Your task to perform on an android device: turn on showing notifications on the lock screen Image 0: 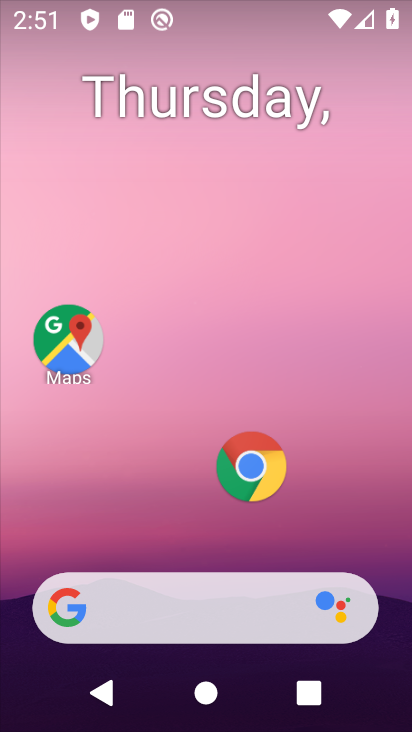
Step 0: drag from (224, 551) to (242, 127)
Your task to perform on an android device: turn on showing notifications on the lock screen Image 1: 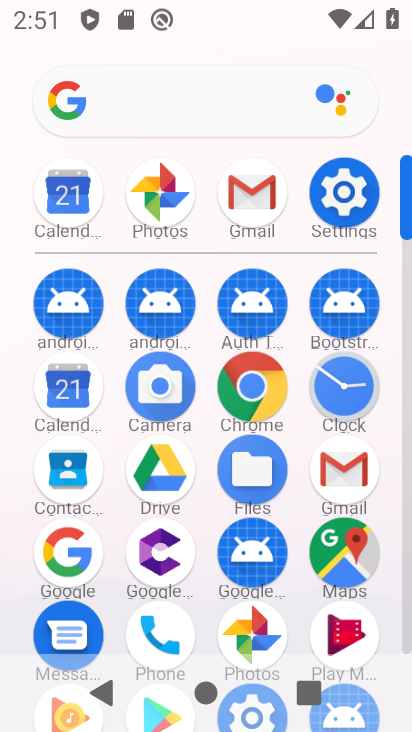
Step 1: click (338, 206)
Your task to perform on an android device: turn on showing notifications on the lock screen Image 2: 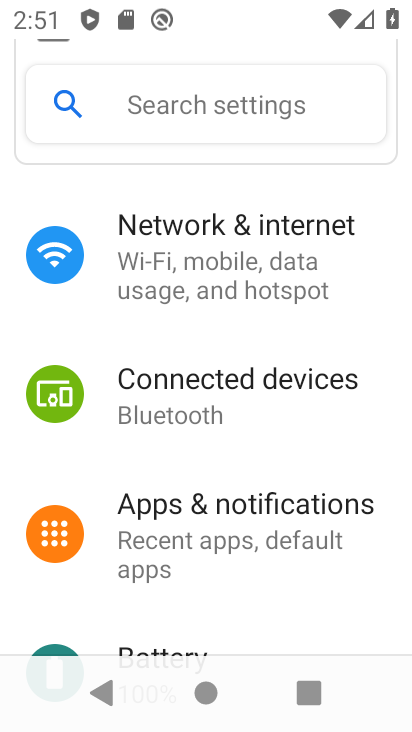
Step 2: drag from (256, 581) to (253, 330)
Your task to perform on an android device: turn on showing notifications on the lock screen Image 3: 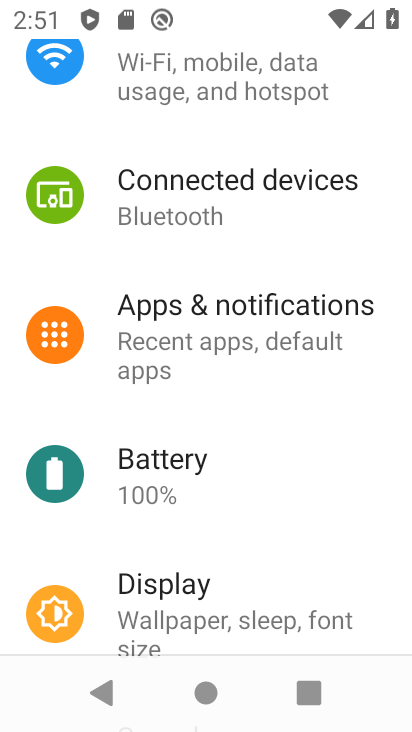
Step 3: drag from (259, 556) to (268, 503)
Your task to perform on an android device: turn on showing notifications on the lock screen Image 4: 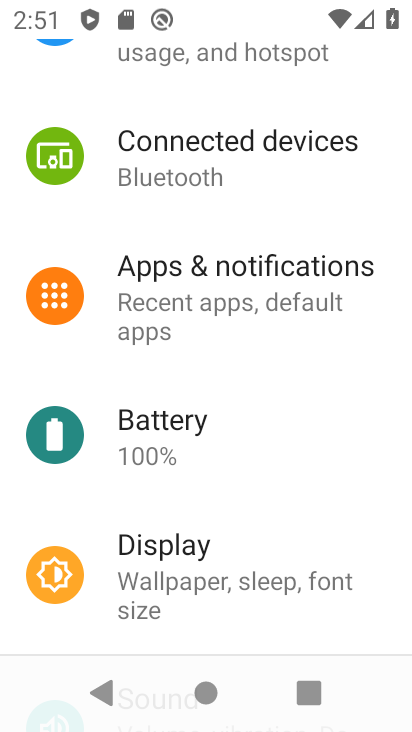
Step 4: click (257, 300)
Your task to perform on an android device: turn on showing notifications on the lock screen Image 5: 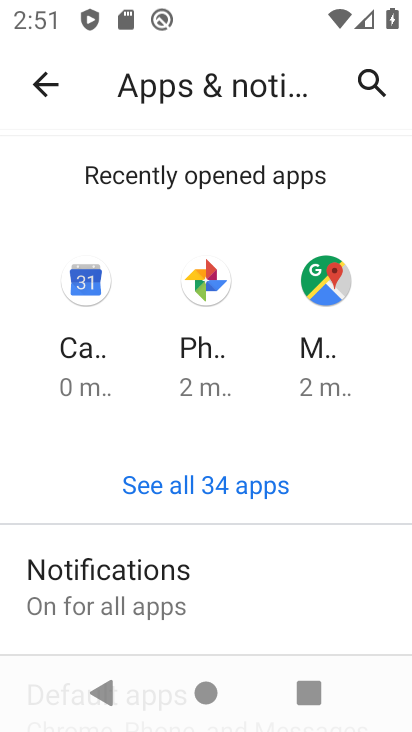
Step 5: drag from (215, 615) to (231, 292)
Your task to perform on an android device: turn on showing notifications on the lock screen Image 6: 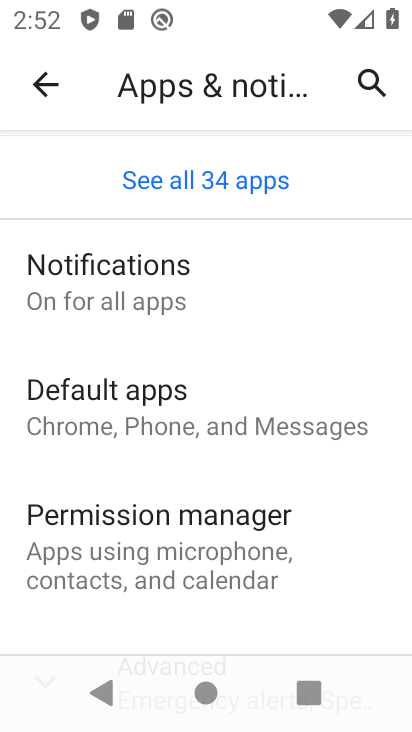
Step 6: drag from (223, 584) to (222, 332)
Your task to perform on an android device: turn on showing notifications on the lock screen Image 7: 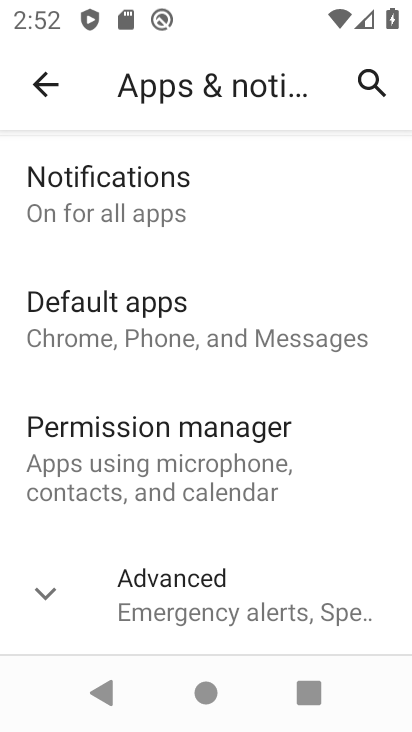
Step 7: drag from (236, 588) to (254, 377)
Your task to perform on an android device: turn on showing notifications on the lock screen Image 8: 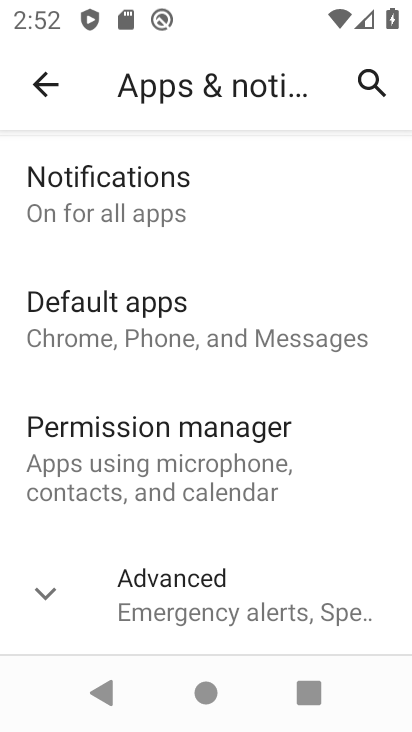
Step 8: click (211, 584)
Your task to perform on an android device: turn on showing notifications on the lock screen Image 9: 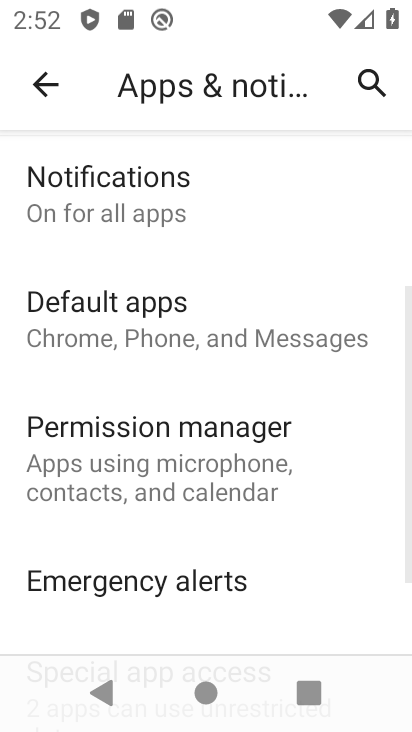
Step 9: click (250, 620)
Your task to perform on an android device: turn on showing notifications on the lock screen Image 10: 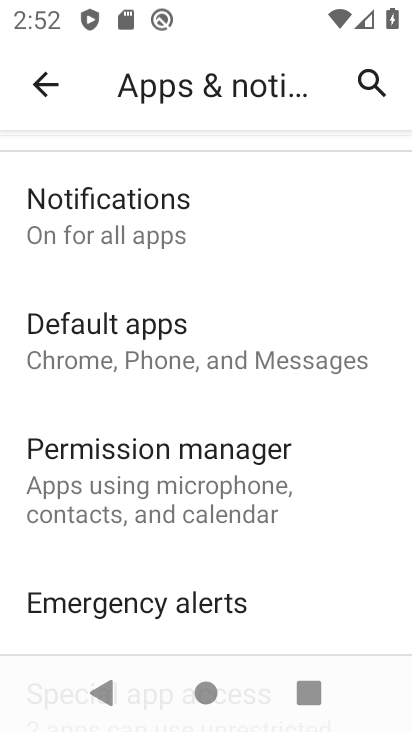
Step 10: click (196, 227)
Your task to perform on an android device: turn on showing notifications on the lock screen Image 11: 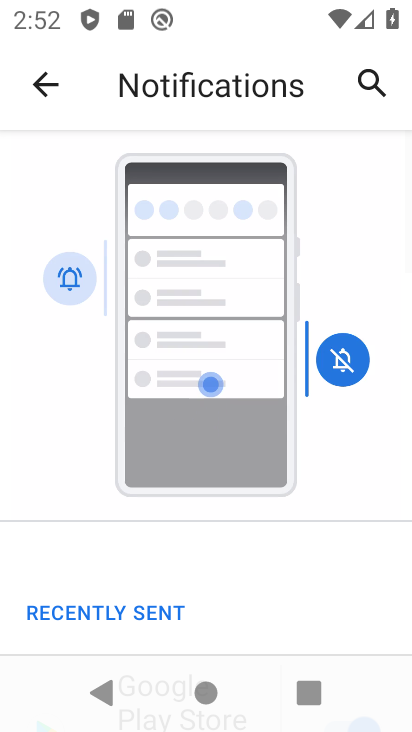
Step 11: drag from (277, 557) to (282, 170)
Your task to perform on an android device: turn on showing notifications on the lock screen Image 12: 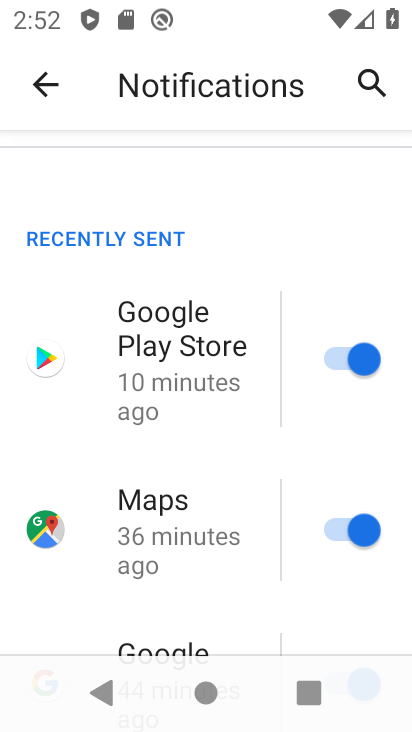
Step 12: drag from (256, 571) to (241, 171)
Your task to perform on an android device: turn on showing notifications on the lock screen Image 13: 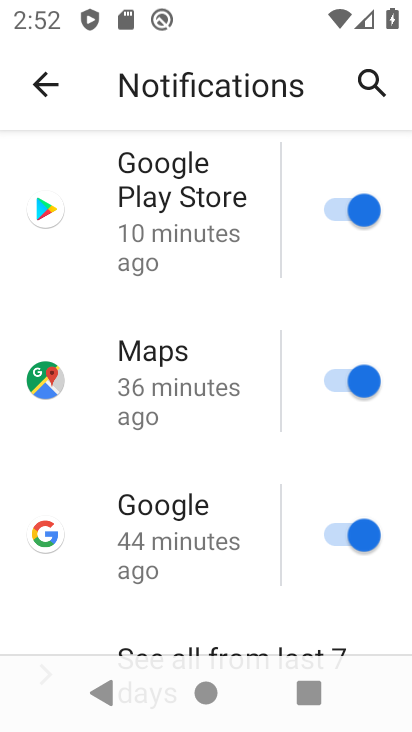
Step 13: drag from (229, 531) to (217, 196)
Your task to perform on an android device: turn on showing notifications on the lock screen Image 14: 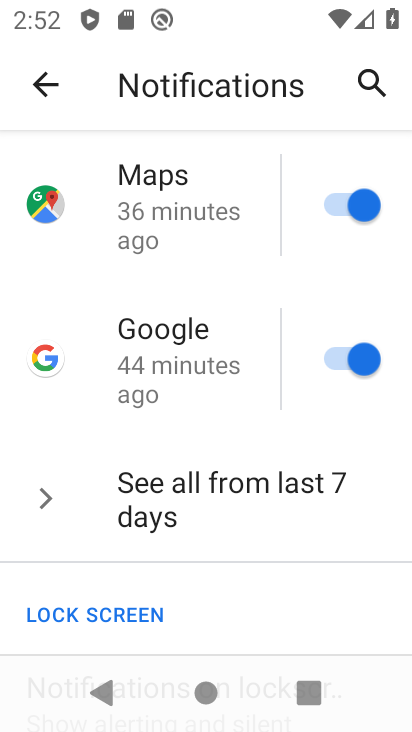
Step 14: drag from (236, 473) to (247, 271)
Your task to perform on an android device: turn on showing notifications on the lock screen Image 15: 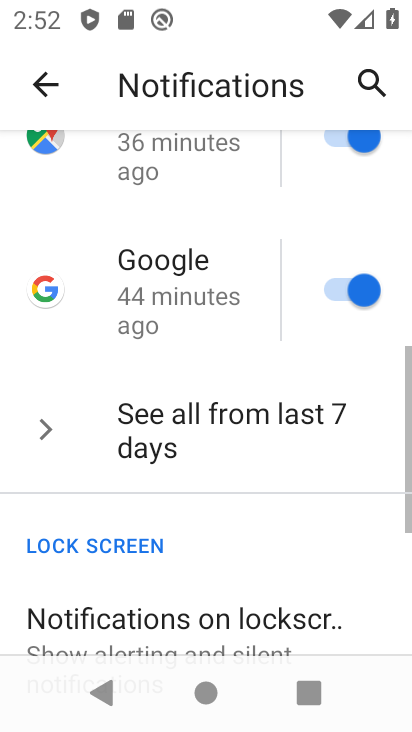
Step 15: drag from (253, 567) to (254, 361)
Your task to perform on an android device: turn on showing notifications on the lock screen Image 16: 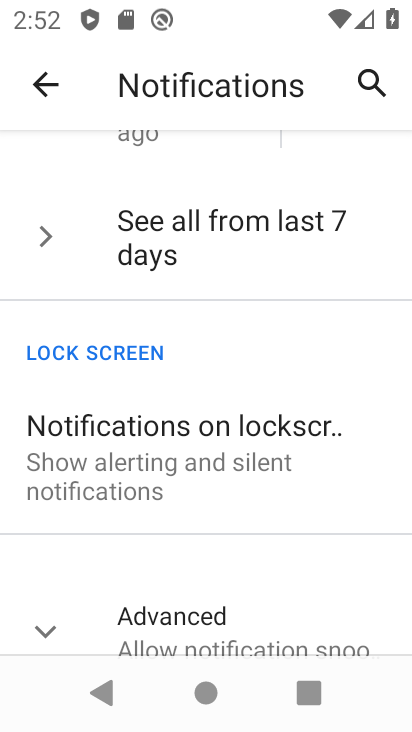
Step 16: click (259, 432)
Your task to perform on an android device: turn on showing notifications on the lock screen Image 17: 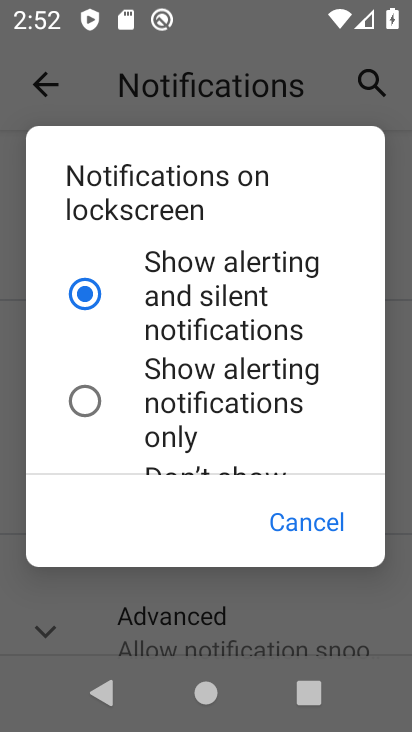
Step 17: task complete